Your task to perform on an android device: open the mobile data screen to see how much data has been used Image 0: 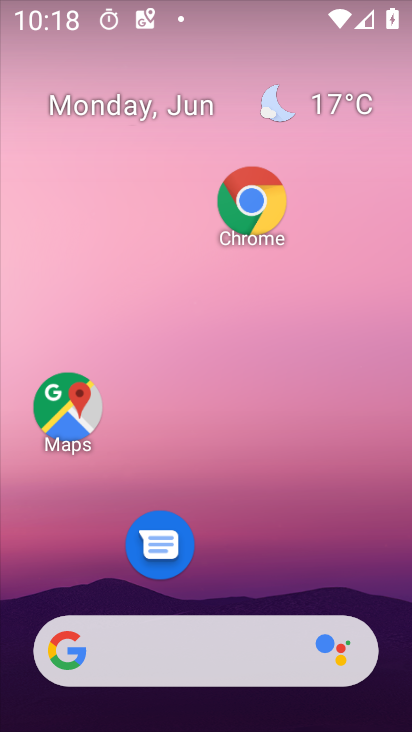
Step 0: drag from (227, 591) to (183, 212)
Your task to perform on an android device: open the mobile data screen to see how much data has been used Image 1: 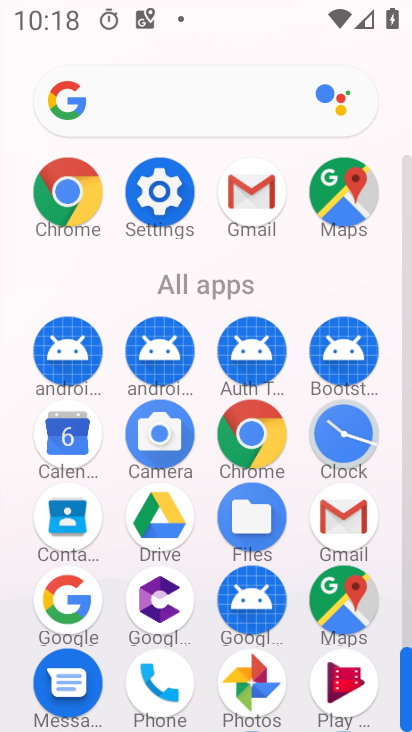
Step 1: click (162, 198)
Your task to perform on an android device: open the mobile data screen to see how much data has been used Image 2: 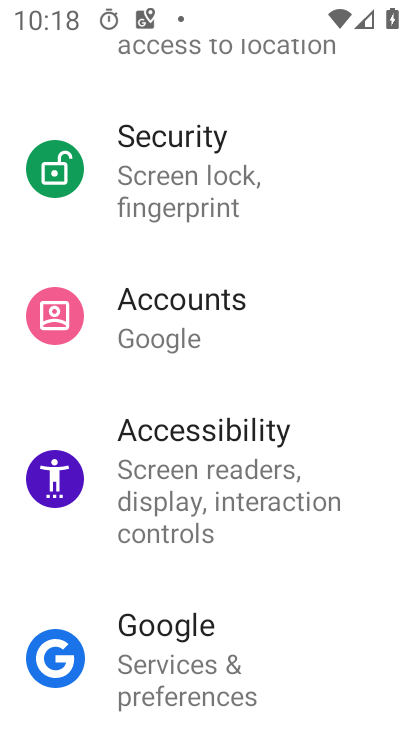
Step 2: drag from (162, 198) to (154, 673)
Your task to perform on an android device: open the mobile data screen to see how much data has been used Image 3: 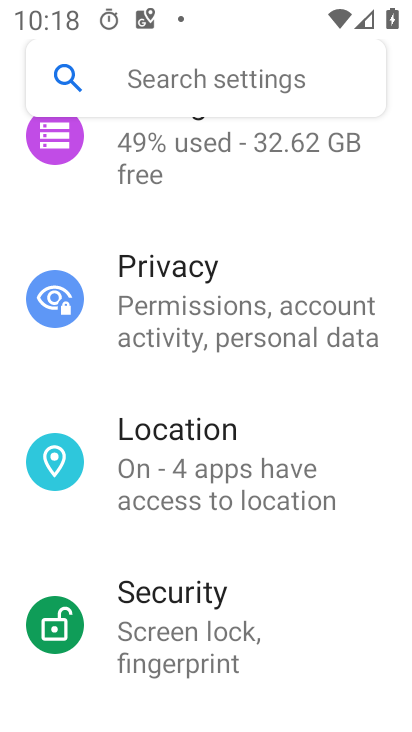
Step 3: drag from (156, 266) to (88, 719)
Your task to perform on an android device: open the mobile data screen to see how much data has been used Image 4: 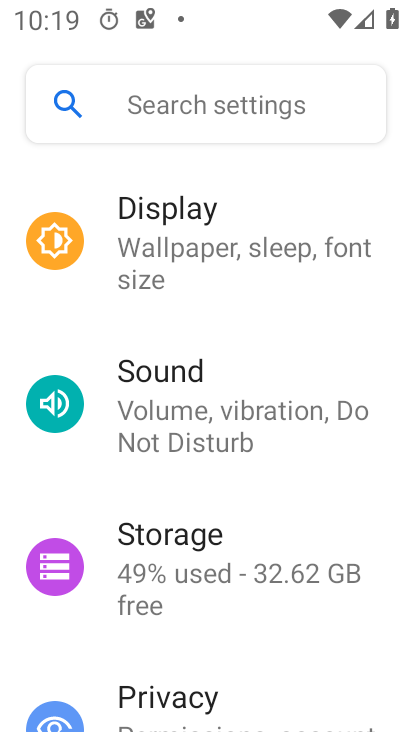
Step 4: drag from (169, 182) to (72, 697)
Your task to perform on an android device: open the mobile data screen to see how much data has been used Image 5: 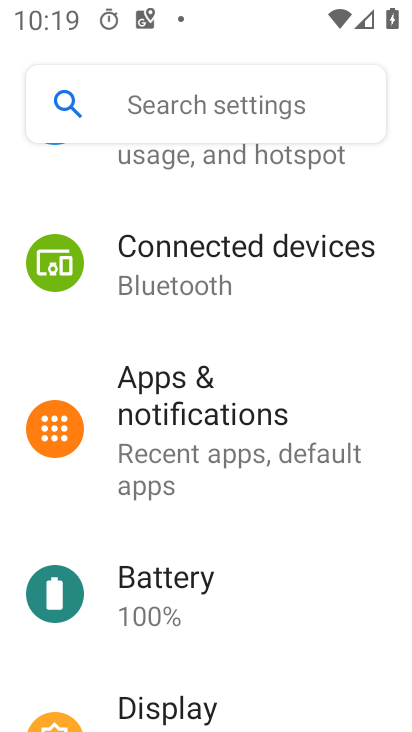
Step 5: drag from (184, 346) to (138, 730)
Your task to perform on an android device: open the mobile data screen to see how much data has been used Image 6: 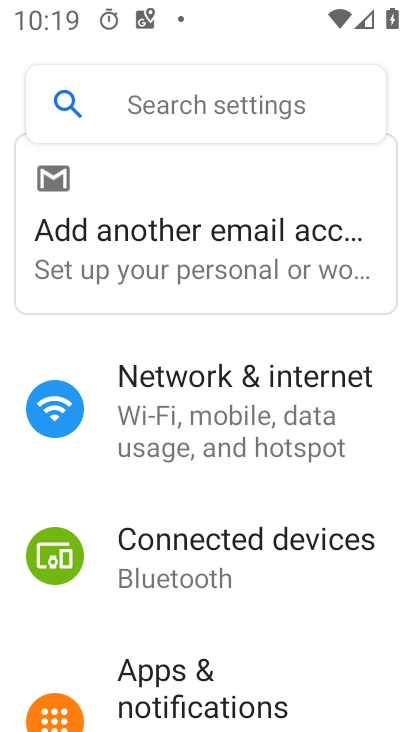
Step 6: click (222, 402)
Your task to perform on an android device: open the mobile data screen to see how much data has been used Image 7: 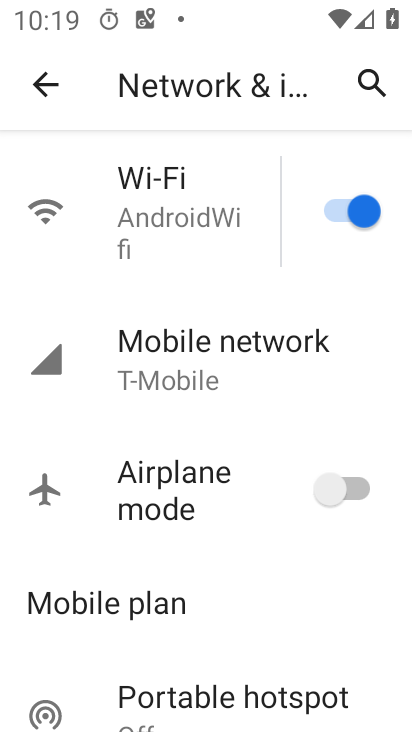
Step 7: click (219, 387)
Your task to perform on an android device: open the mobile data screen to see how much data has been used Image 8: 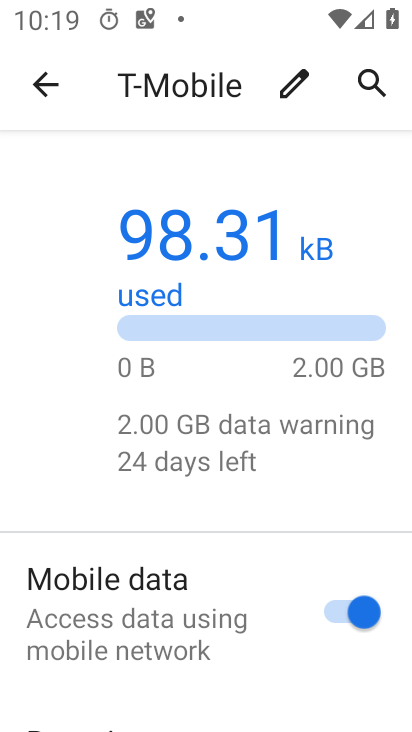
Step 8: task complete